Your task to perform on an android device: Turn on the flashlight Image 0: 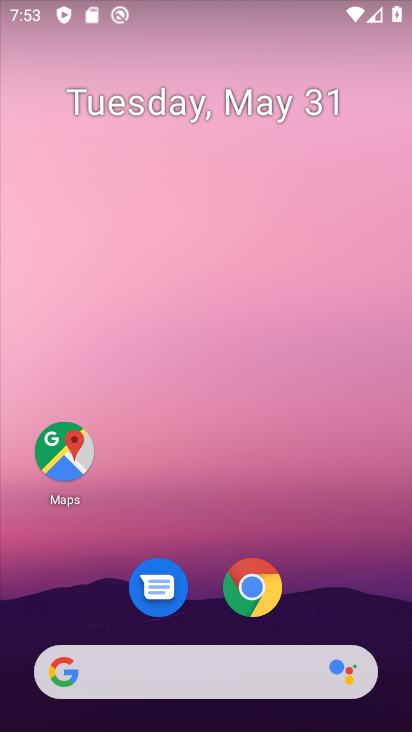
Step 0: drag from (187, 631) to (195, 50)
Your task to perform on an android device: Turn on the flashlight Image 1: 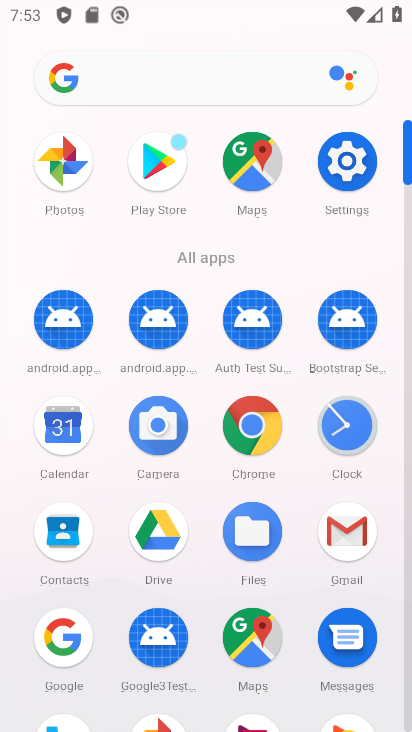
Step 1: click (365, 160)
Your task to perform on an android device: Turn on the flashlight Image 2: 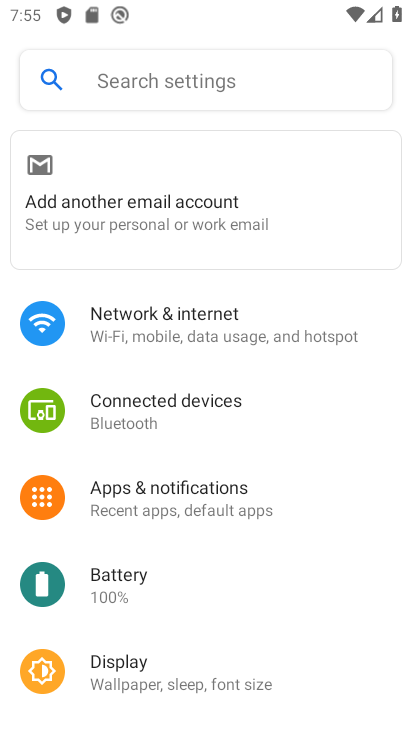
Step 2: task complete